Your task to perform on an android device: Open location settings Image 0: 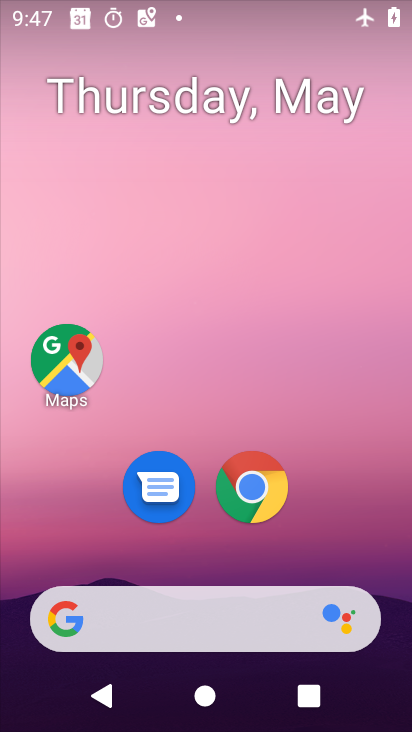
Step 0: drag from (236, 598) to (246, 7)
Your task to perform on an android device: Open location settings Image 1: 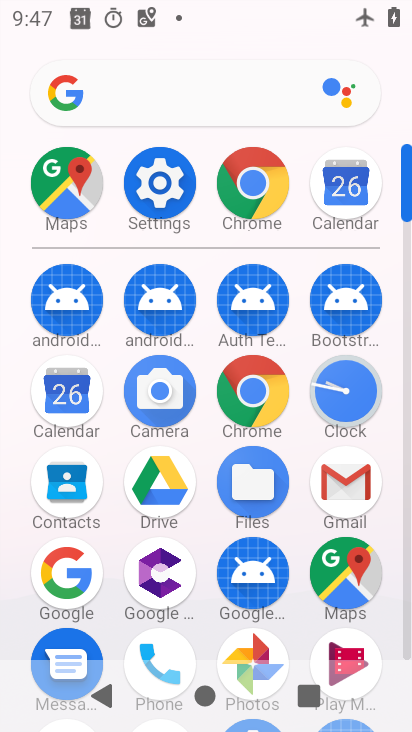
Step 1: click (158, 206)
Your task to perform on an android device: Open location settings Image 2: 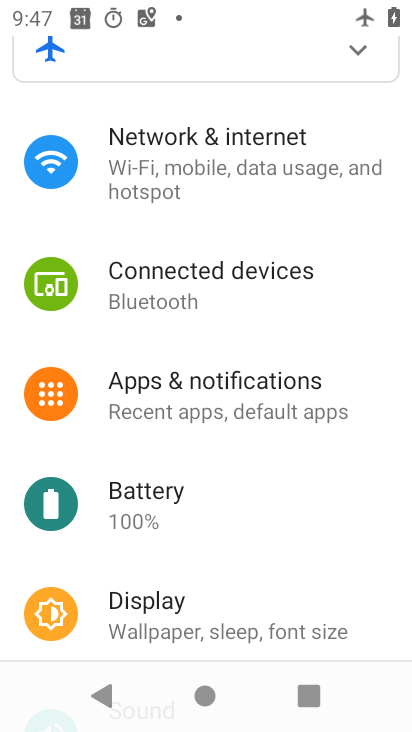
Step 2: drag from (183, 536) to (173, 243)
Your task to perform on an android device: Open location settings Image 3: 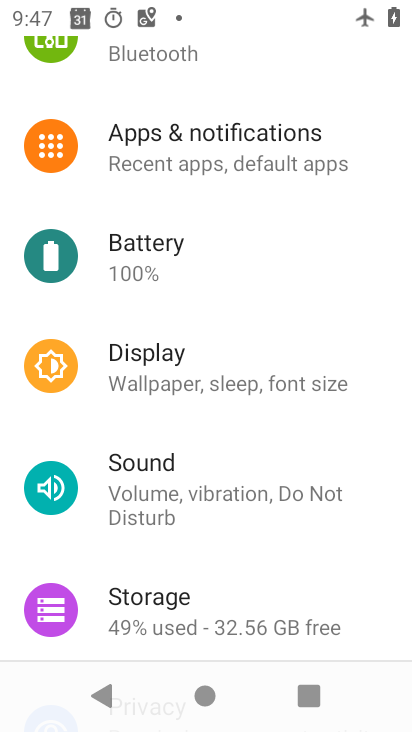
Step 3: drag from (183, 578) to (197, 174)
Your task to perform on an android device: Open location settings Image 4: 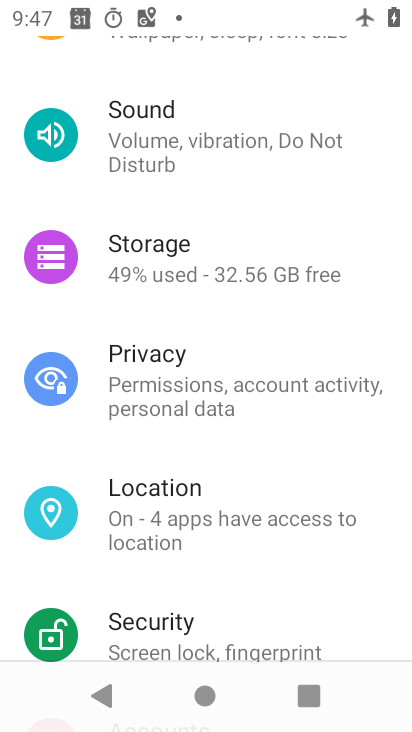
Step 4: click (256, 500)
Your task to perform on an android device: Open location settings Image 5: 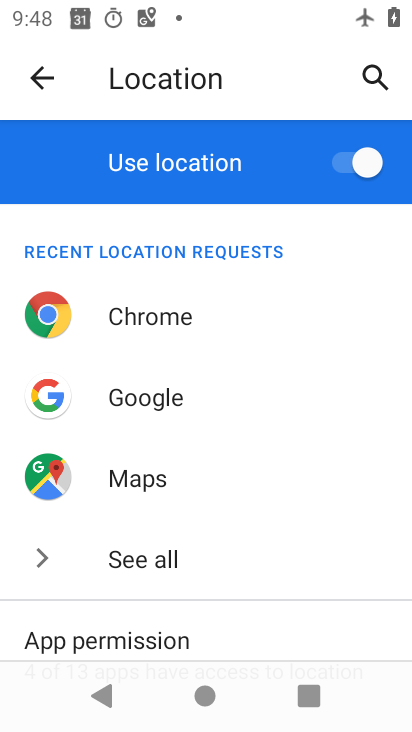
Step 5: task complete